Your task to perform on an android device: Search for "macbook pro 13 inch" on walmart, select the first entry, and add it to the cart. Image 0: 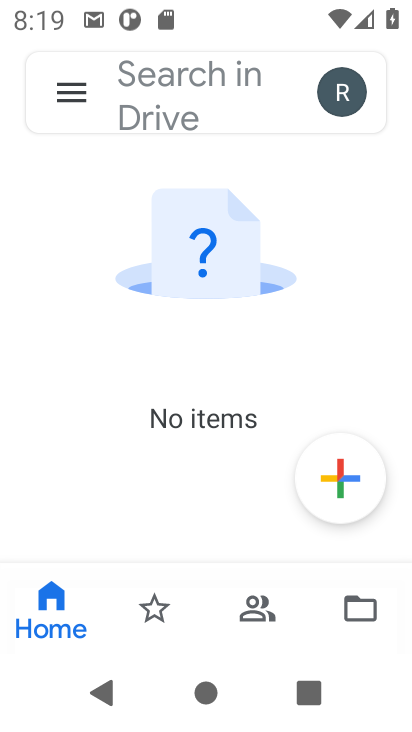
Step 0: press home button
Your task to perform on an android device: Search for "macbook pro 13 inch" on walmart, select the first entry, and add it to the cart. Image 1: 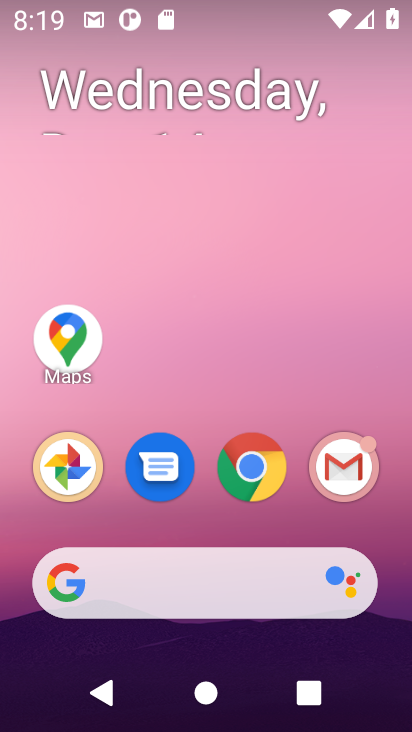
Step 1: click (251, 487)
Your task to perform on an android device: Search for "macbook pro 13 inch" on walmart, select the first entry, and add it to the cart. Image 2: 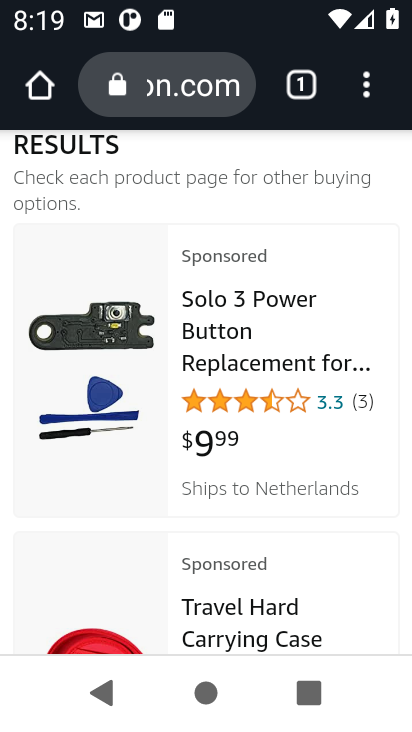
Step 2: click (183, 109)
Your task to perform on an android device: Search for "macbook pro 13 inch" on walmart, select the first entry, and add it to the cart. Image 3: 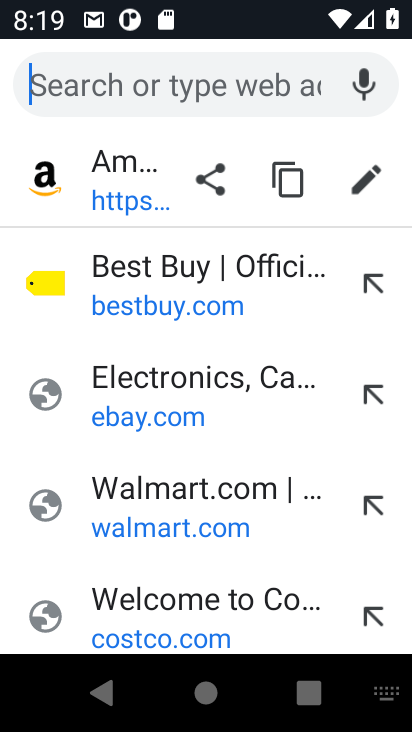
Step 3: click (274, 478)
Your task to perform on an android device: Search for "macbook pro 13 inch" on walmart, select the first entry, and add it to the cart. Image 4: 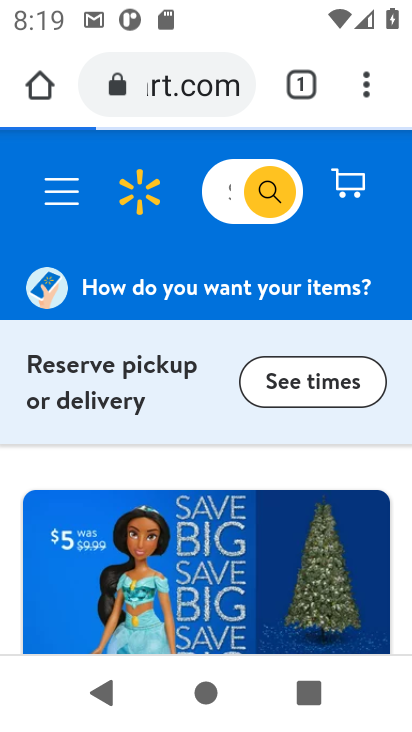
Step 4: click (222, 201)
Your task to perform on an android device: Search for "macbook pro 13 inch" on walmart, select the first entry, and add it to the cart. Image 5: 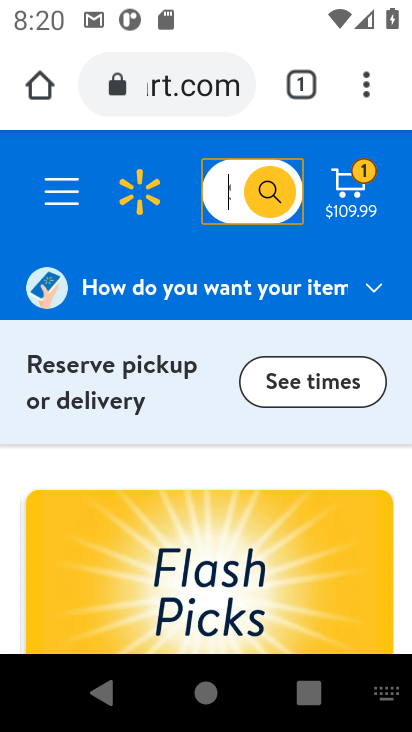
Step 5: type "macbook pro 13"
Your task to perform on an android device: Search for "macbook pro 13 inch" on walmart, select the first entry, and add it to the cart. Image 6: 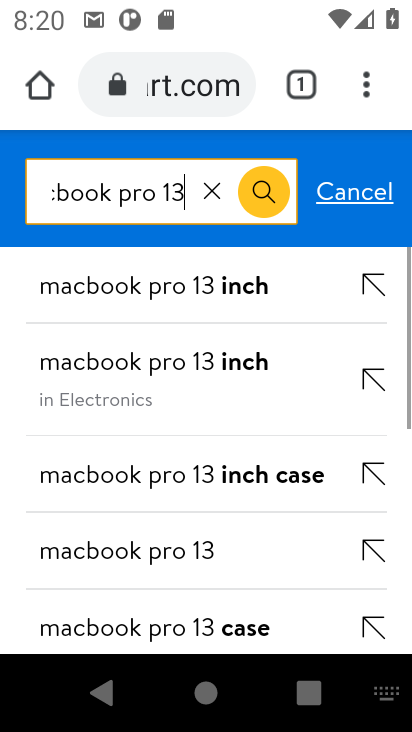
Step 6: click (238, 286)
Your task to perform on an android device: Search for "macbook pro 13 inch" on walmart, select the first entry, and add it to the cart. Image 7: 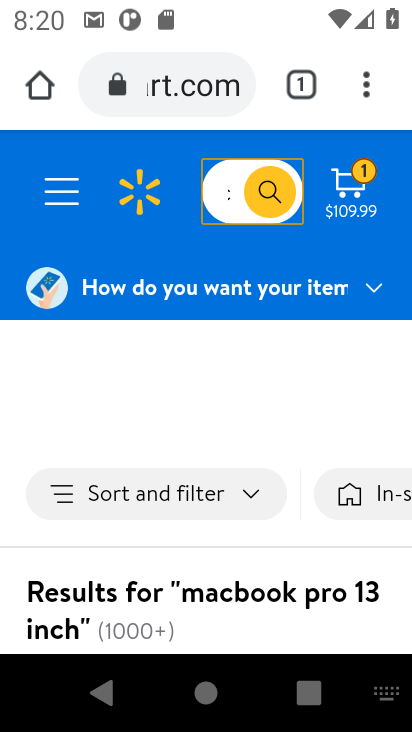
Step 7: drag from (242, 537) to (341, 215)
Your task to perform on an android device: Search for "macbook pro 13 inch" on walmart, select the first entry, and add it to the cart. Image 8: 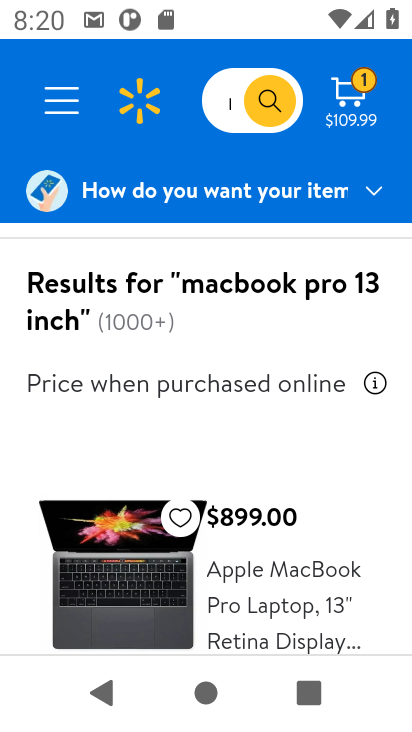
Step 8: drag from (301, 556) to (343, 383)
Your task to perform on an android device: Search for "macbook pro 13 inch" on walmart, select the first entry, and add it to the cart. Image 9: 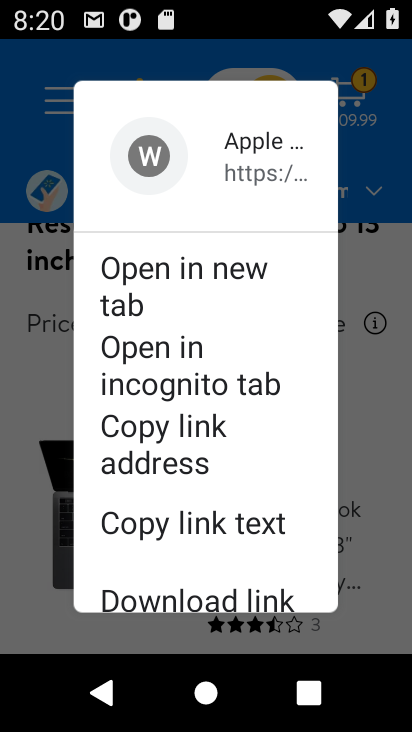
Step 9: click (350, 456)
Your task to perform on an android device: Search for "macbook pro 13 inch" on walmart, select the first entry, and add it to the cart. Image 10: 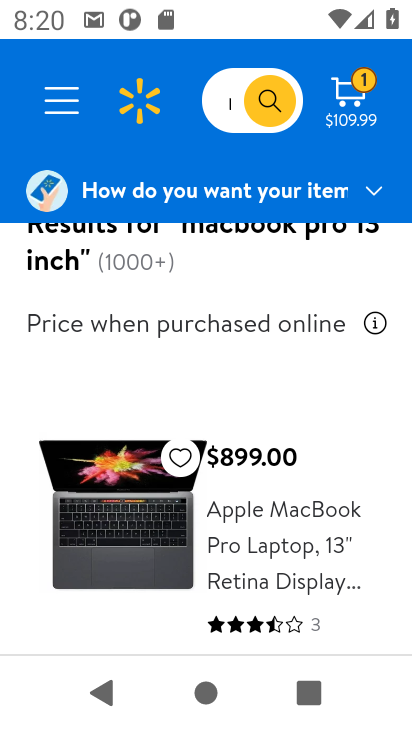
Step 10: drag from (347, 624) to (387, 341)
Your task to perform on an android device: Search for "macbook pro 13 inch" on walmart, select the first entry, and add it to the cart. Image 11: 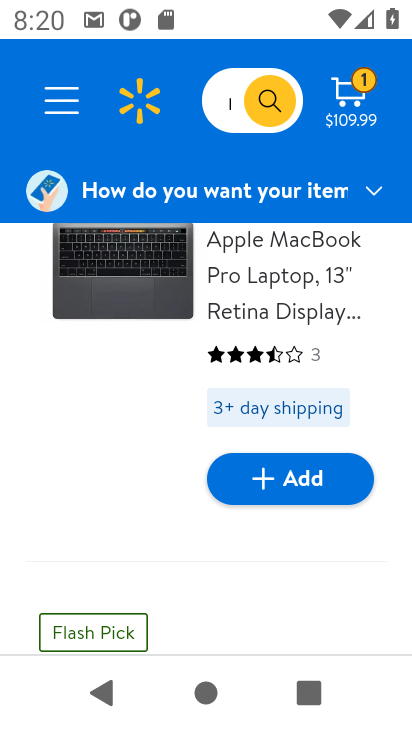
Step 11: click (320, 495)
Your task to perform on an android device: Search for "macbook pro 13 inch" on walmart, select the first entry, and add it to the cart. Image 12: 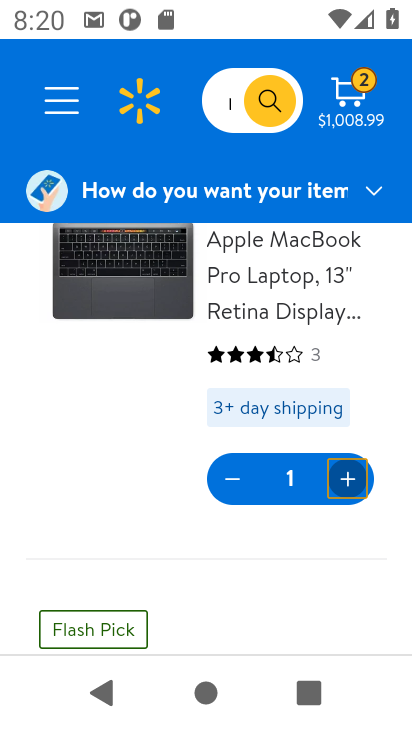
Step 12: task complete